Your task to perform on an android device: Open display settings Image 0: 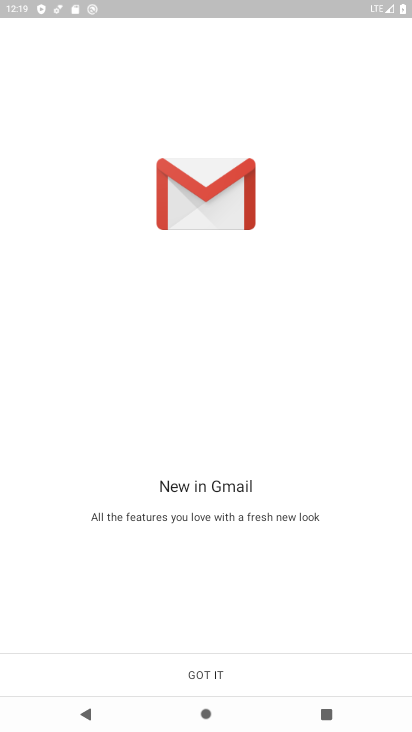
Step 0: press home button
Your task to perform on an android device: Open display settings Image 1: 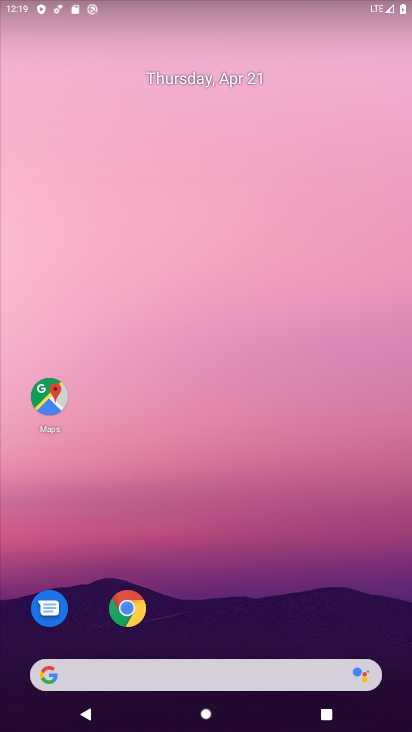
Step 1: drag from (226, 475) to (262, 185)
Your task to perform on an android device: Open display settings Image 2: 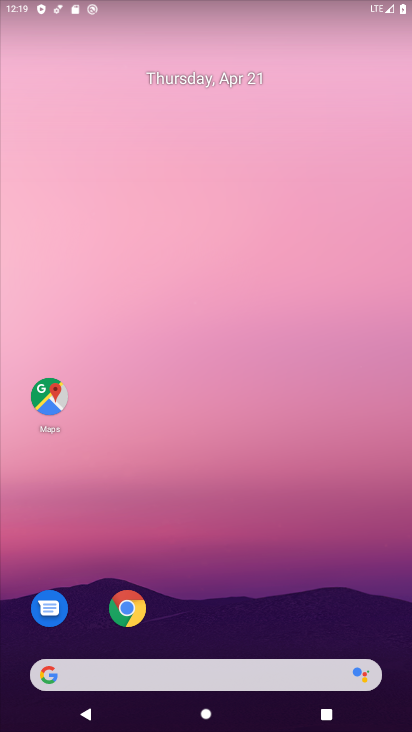
Step 2: drag from (209, 634) to (263, 167)
Your task to perform on an android device: Open display settings Image 3: 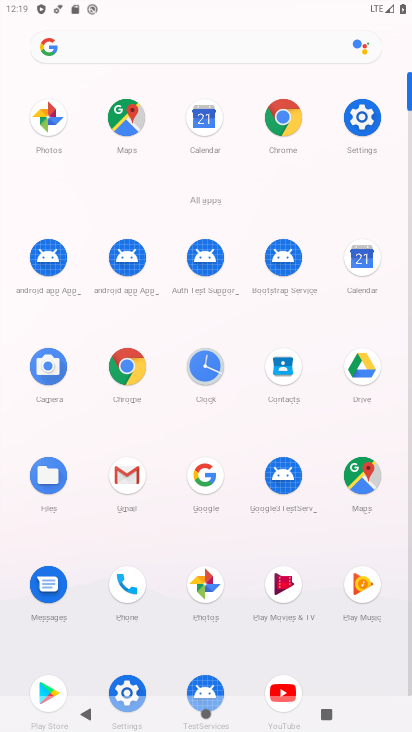
Step 3: click (359, 124)
Your task to perform on an android device: Open display settings Image 4: 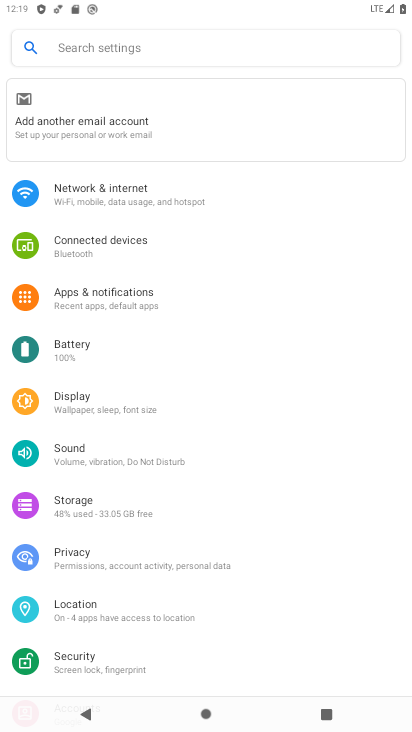
Step 4: click (93, 397)
Your task to perform on an android device: Open display settings Image 5: 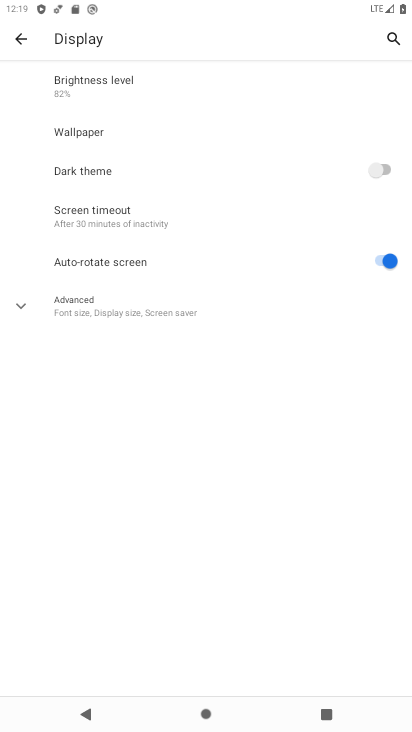
Step 5: task complete